Your task to perform on an android device: Is it going to rain tomorrow? Image 0: 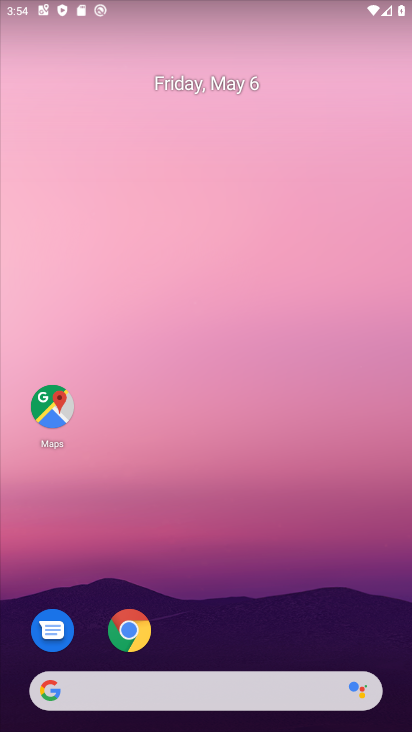
Step 0: click (199, 687)
Your task to perform on an android device: Is it going to rain tomorrow? Image 1: 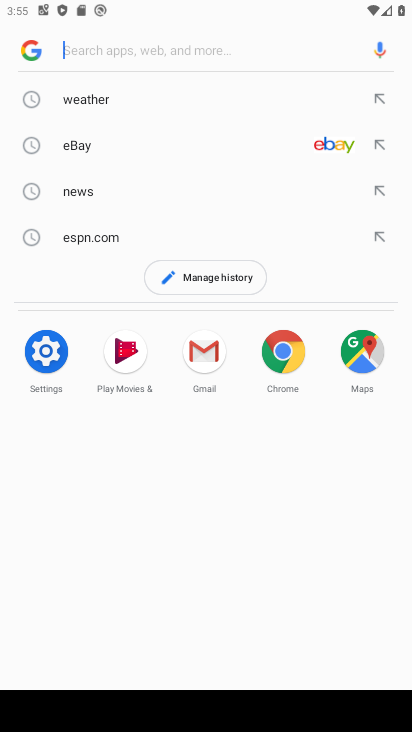
Step 1: click (21, 93)
Your task to perform on an android device: Is it going to rain tomorrow? Image 2: 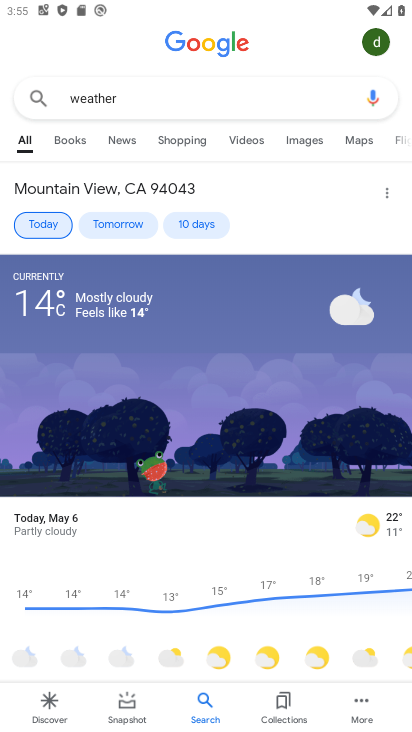
Step 2: click (107, 226)
Your task to perform on an android device: Is it going to rain tomorrow? Image 3: 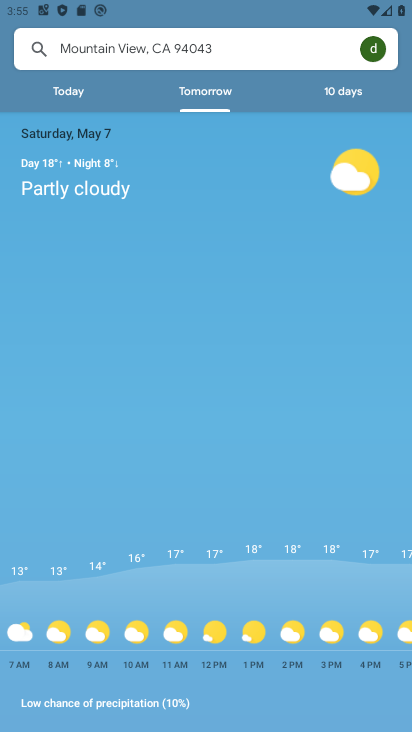
Step 3: task complete